Your task to perform on an android device: Open ESPN.com Image 0: 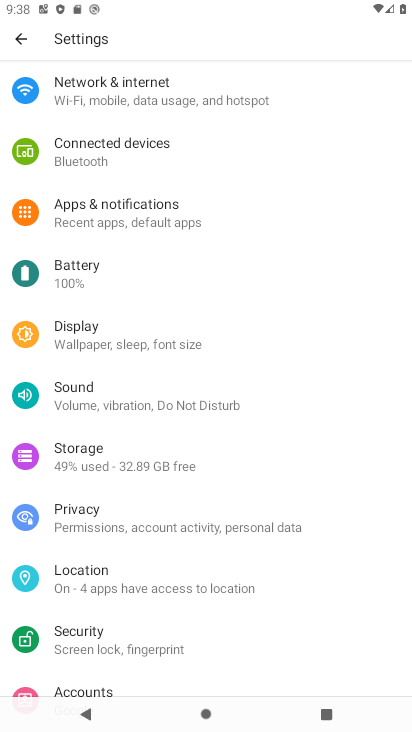
Step 0: press back button
Your task to perform on an android device: Open ESPN.com Image 1: 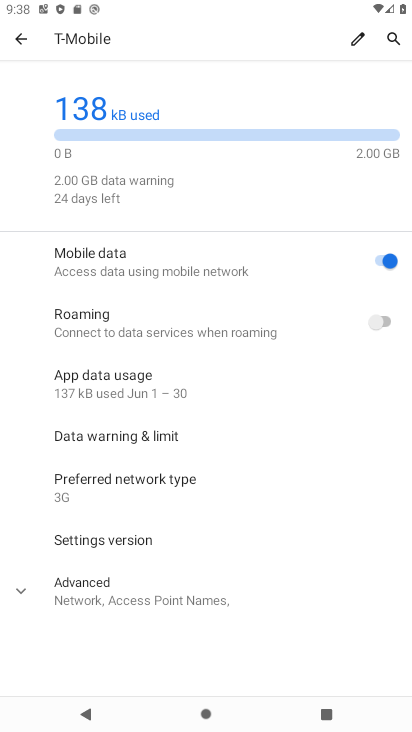
Step 1: press back button
Your task to perform on an android device: Open ESPN.com Image 2: 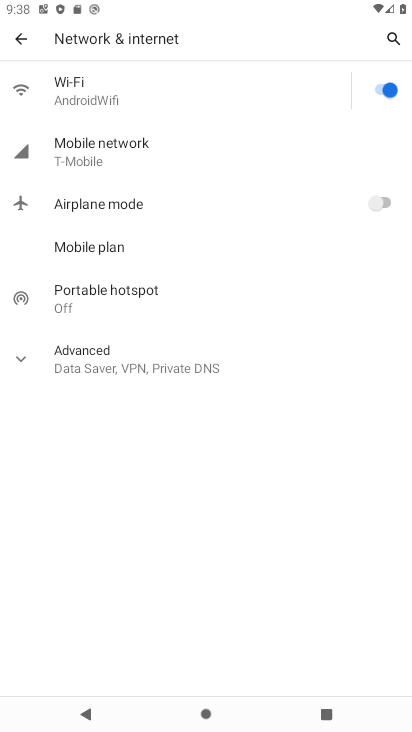
Step 2: press back button
Your task to perform on an android device: Open ESPN.com Image 3: 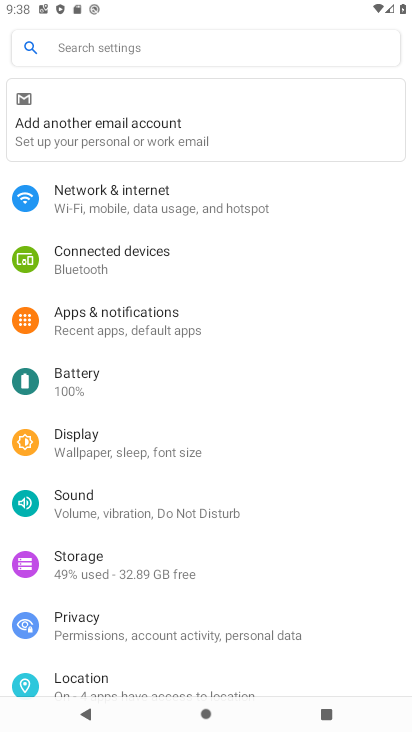
Step 3: press back button
Your task to perform on an android device: Open ESPN.com Image 4: 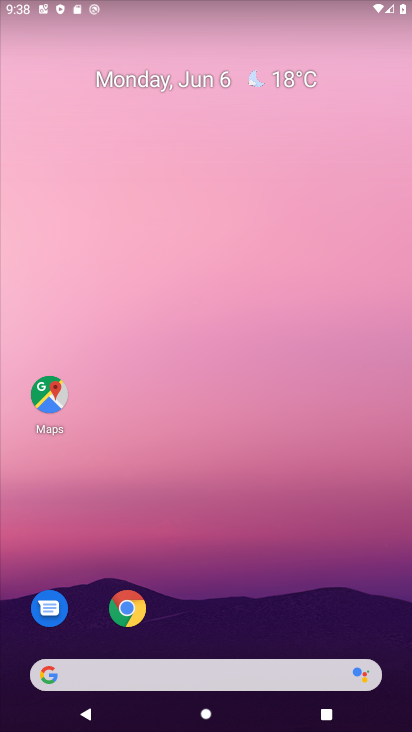
Step 4: click (128, 612)
Your task to perform on an android device: Open ESPN.com Image 5: 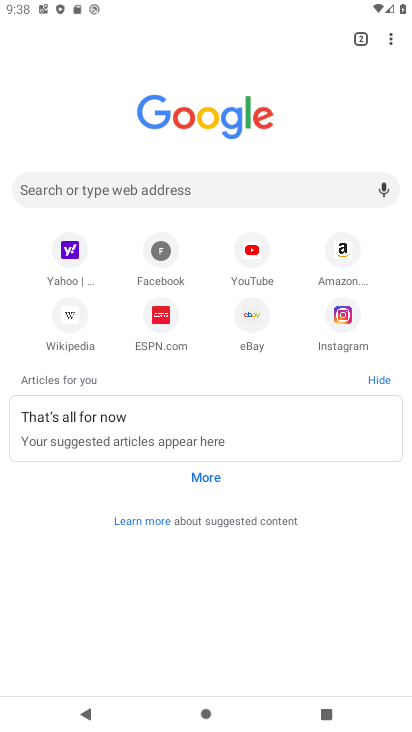
Step 5: click (162, 322)
Your task to perform on an android device: Open ESPN.com Image 6: 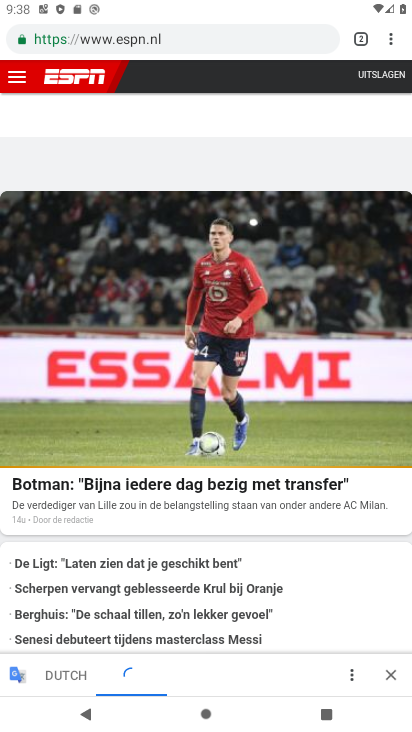
Step 6: task complete